Your task to perform on an android device: turn on location history Image 0: 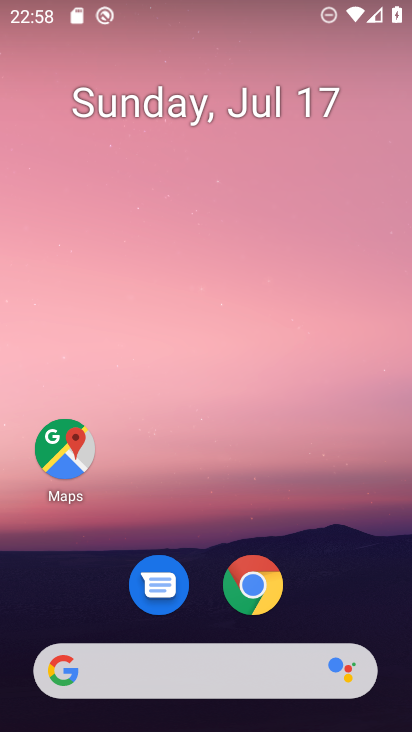
Step 0: press home button
Your task to perform on an android device: turn on location history Image 1: 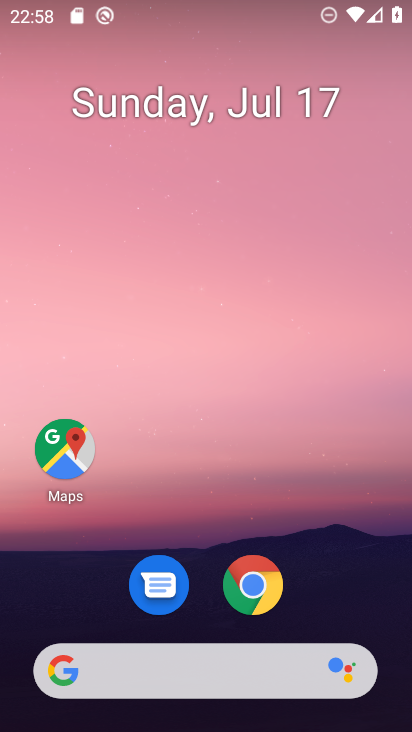
Step 1: click (69, 460)
Your task to perform on an android device: turn on location history Image 2: 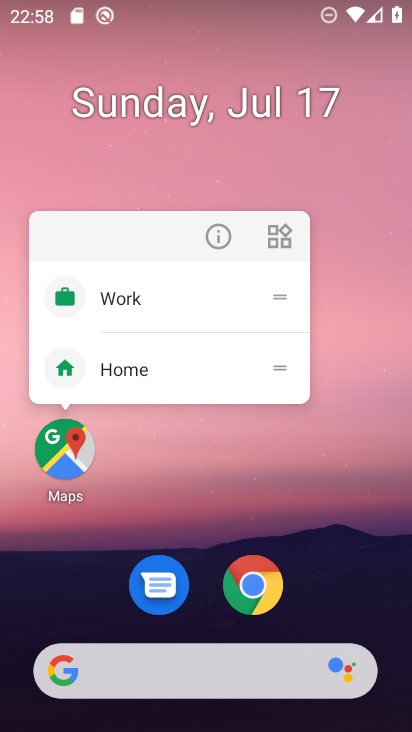
Step 2: click (62, 455)
Your task to perform on an android device: turn on location history Image 3: 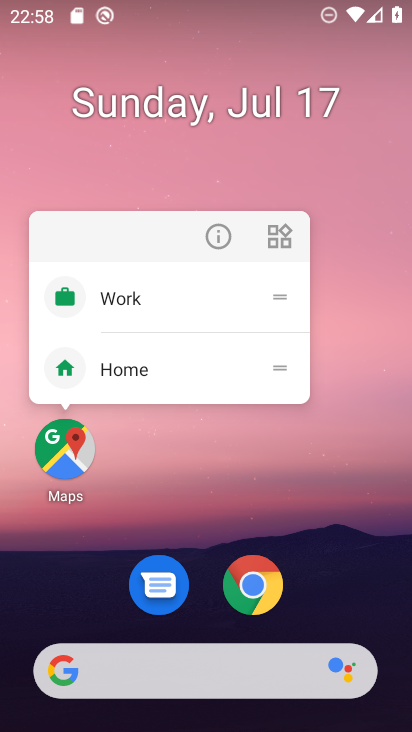
Step 3: click (62, 455)
Your task to perform on an android device: turn on location history Image 4: 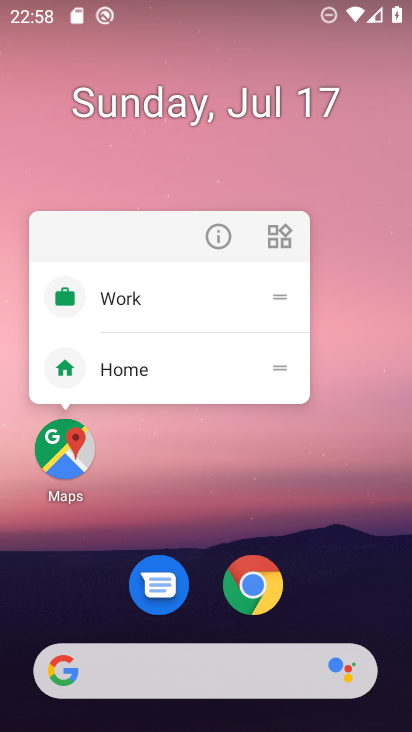
Step 4: click (62, 455)
Your task to perform on an android device: turn on location history Image 5: 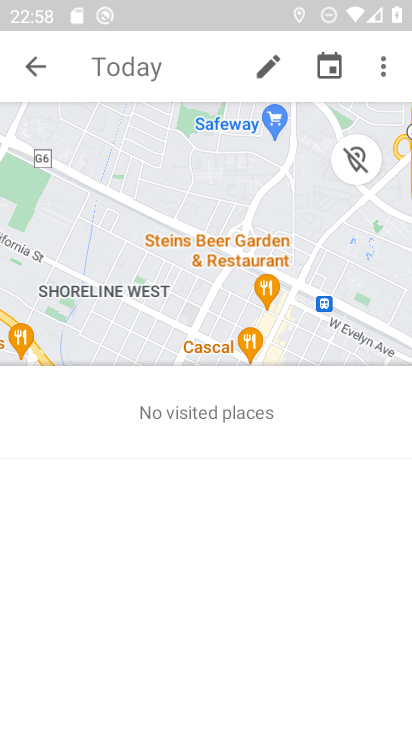
Step 5: click (386, 65)
Your task to perform on an android device: turn on location history Image 6: 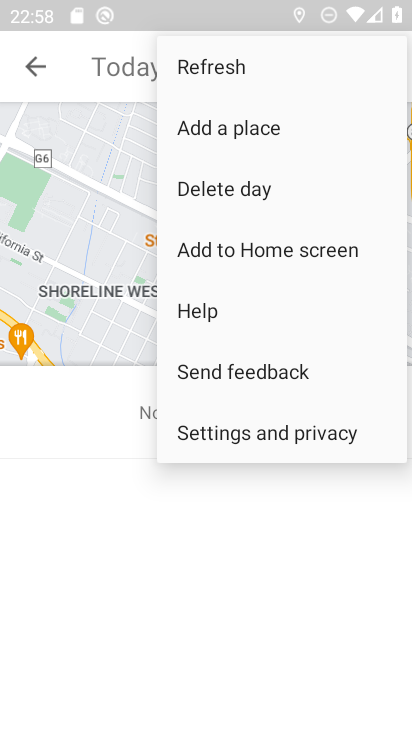
Step 6: click (243, 437)
Your task to perform on an android device: turn on location history Image 7: 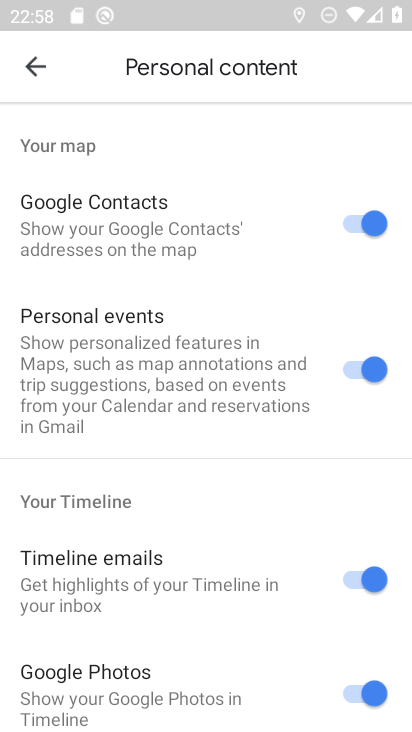
Step 7: drag from (163, 553) to (350, 273)
Your task to perform on an android device: turn on location history Image 8: 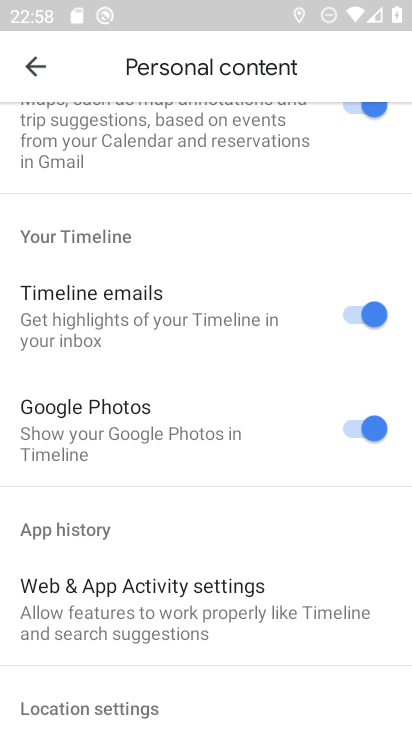
Step 8: drag from (192, 653) to (355, 262)
Your task to perform on an android device: turn on location history Image 9: 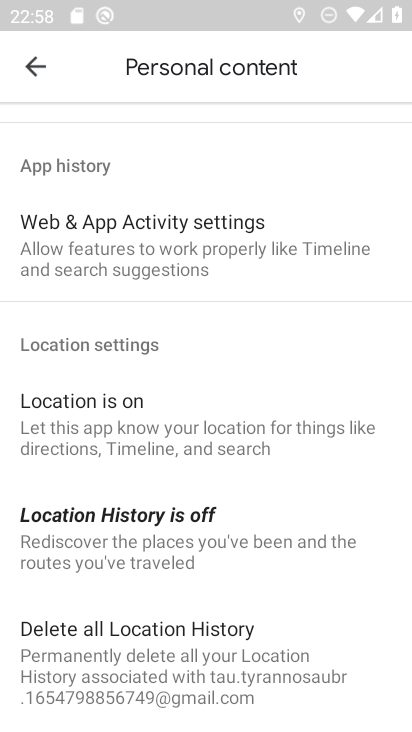
Step 9: click (189, 538)
Your task to perform on an android device: turn on location history Image 10: 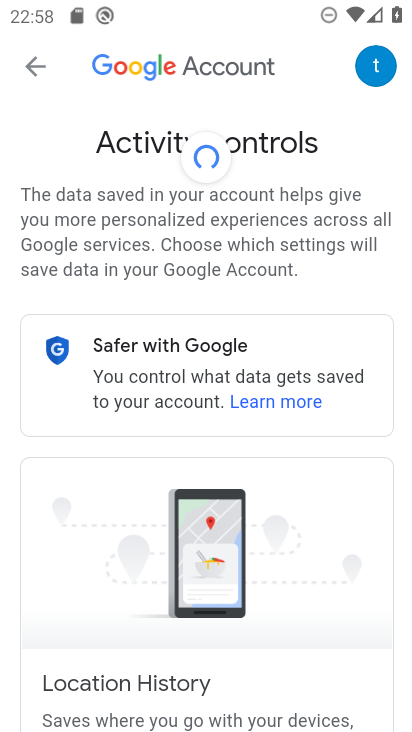
Step 10: task complete